Your task to perform on an android device: Open Android settings Image 0: 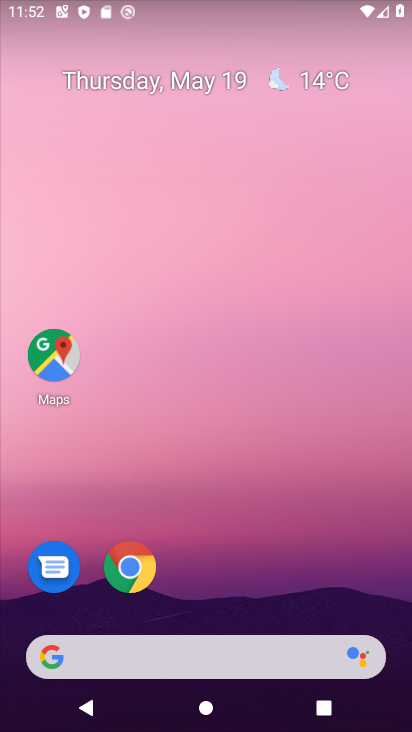
Step 0: drag from (322, 500) to (343, 34)
Your task to perform on an android device: Open Android settings Image 1: 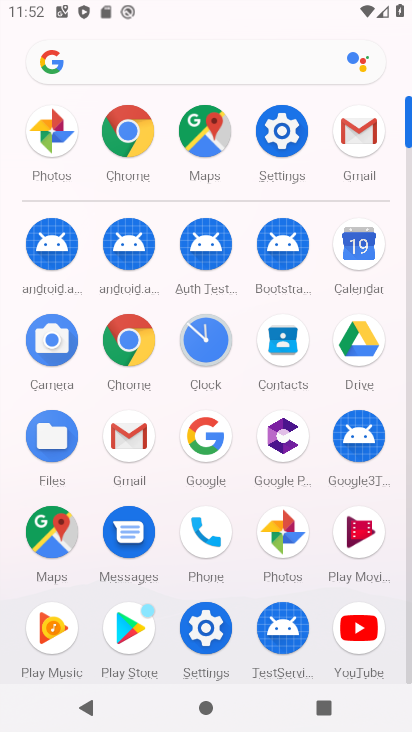
Step 1: click (277, 145)
Your task to perform on an android device: Open Android settings Image 2: 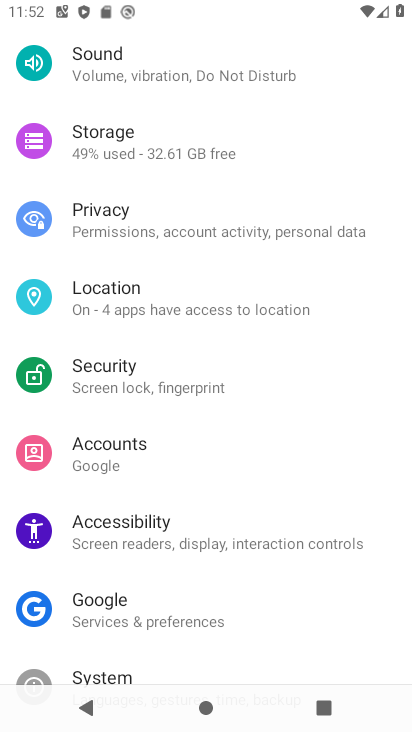
Step 2: drag from (223, 578) to (224, 277)
Your task to perform on an android device: Open Android settings Image 3: 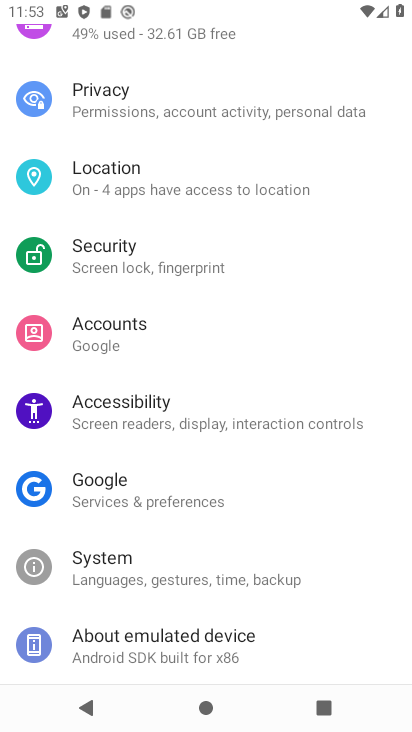
Step 3: drag from (264, 508) to (303, 138)
Your task to perform on an android device: Open Android settings Image 4: 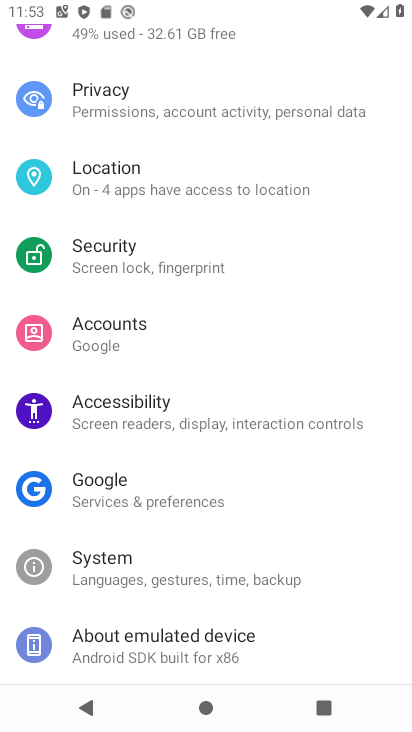
Step 4: click (163, 633)
Your task to perform on an android device: Open Android settings Image 5: 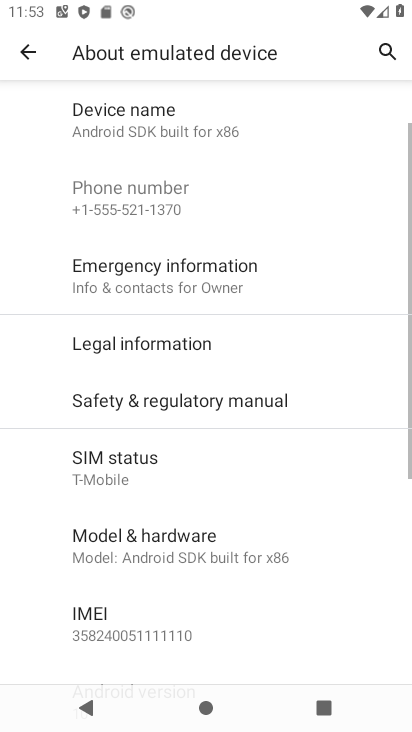
Step 5: drag from (175, 593) to (178, 238)
Your task to perform on an android device: Open Android settings Image 6: 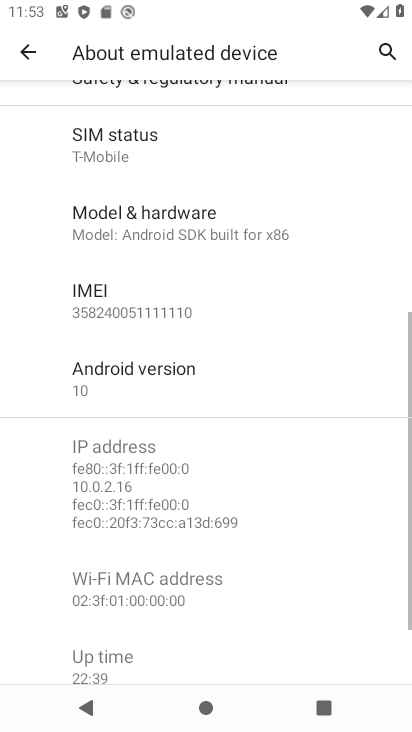
Step 6: click (188, 356)
Your task to perform on an android device: Open Android settings Image 7: 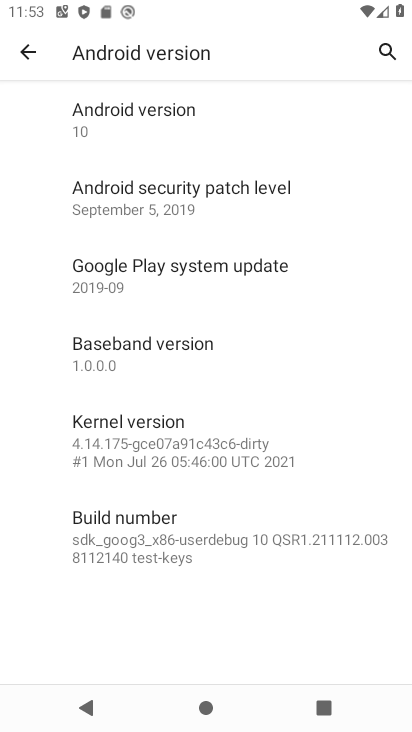
Step 7: task complete